Your task to perform on an android device: Show me recent news Image 0: 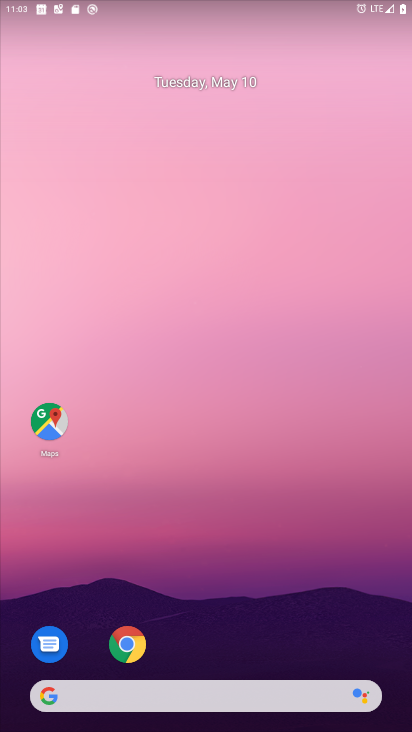
Step 0: drag from (258, 554) to (253, 101)
Your task to perform on an android device: Show me recent news Image 1: 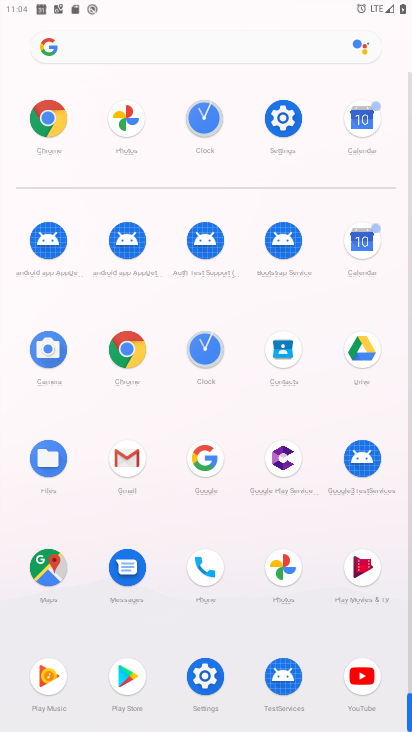
Step 1: drag from (238, 455) to (239, 343)
Your task to perform on an android device: Show me recent news Image 2: 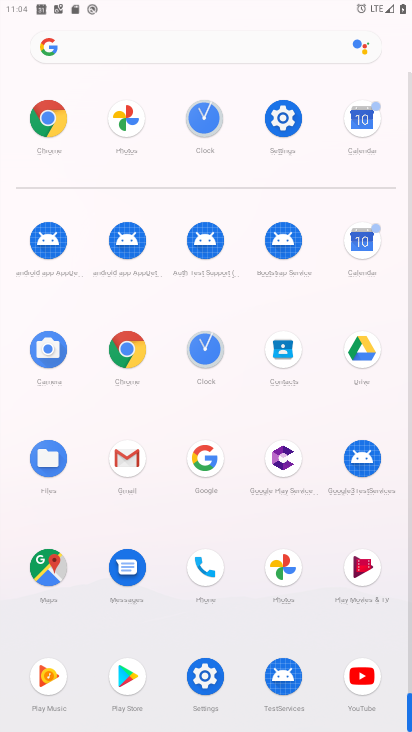
Step 2: click (208, 478)
Your task to perform on an android device: Show me recent news Image 3: 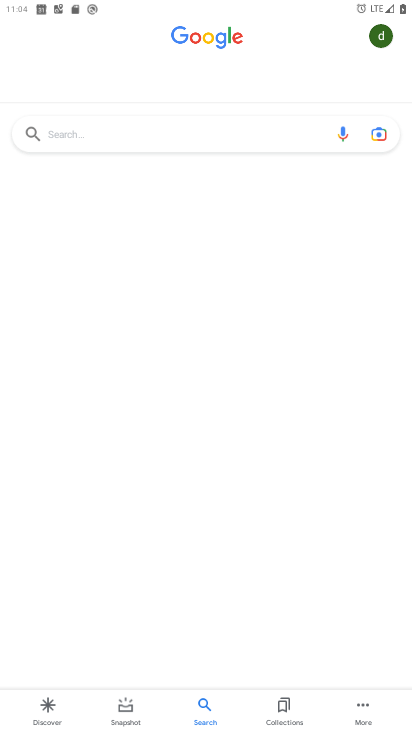
Step 3: click (164, 139)
Your task to perform on an android device: Show me recent news Image 4: 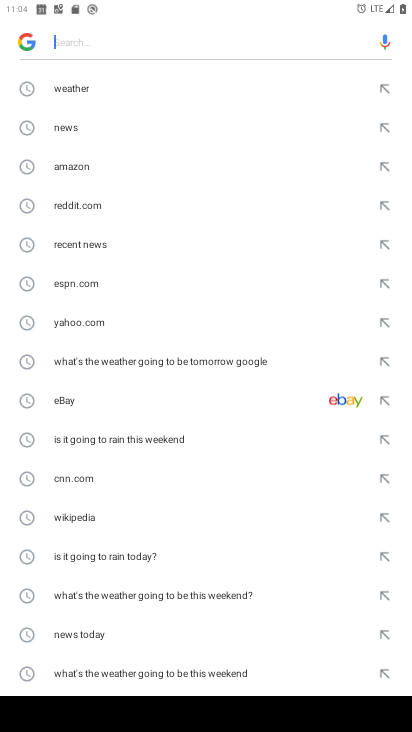
Step 4: click (117, 135)
Your task to perform on an android device: Show me recent news Image 5: 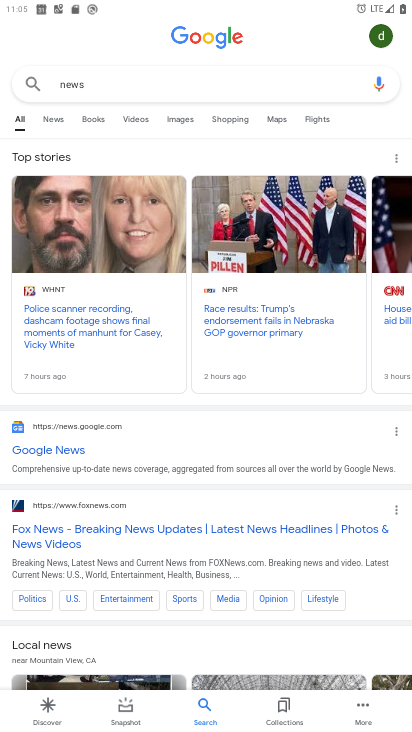
Step 5: click (57, 115)
Your task to perform on an android device: Show me recent news Image 6: 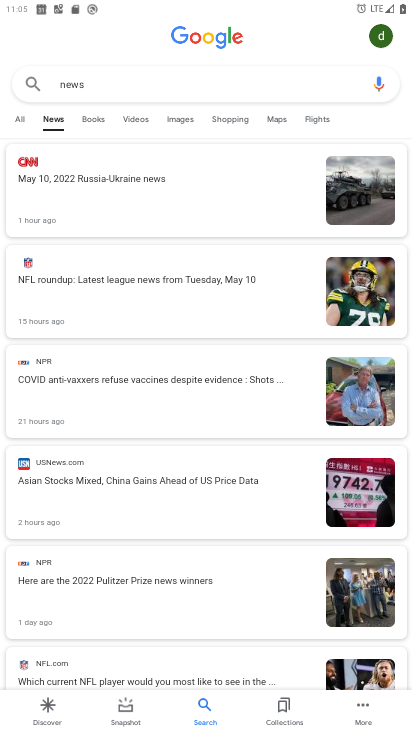
Step 6: task complete